Your task to perform on an android device: open app "HBO Max: Stream TV & Movies" (install if not already installed) Image 0: 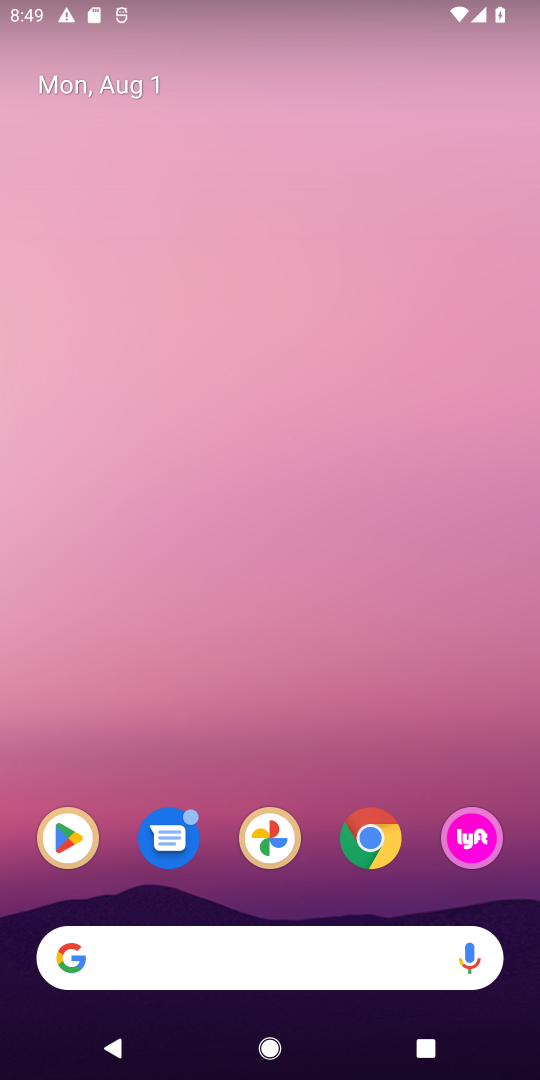
Step 0: drag from (364, 952) to (292, 219)
Your task to perform on an android device: open app "HBO Max: Stream TV & Movies" (install if not already installed) Image 1: 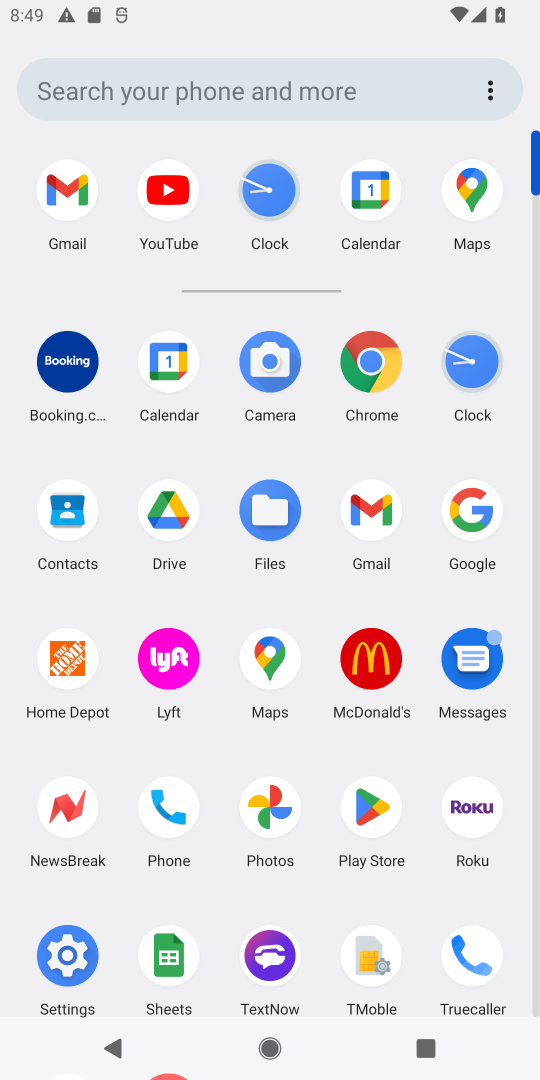
Step 1: click (362, 807)
Your task to perform on an android device: open app "HBO Max: Stream TV & Movies" (install if not already installed) Image 2: 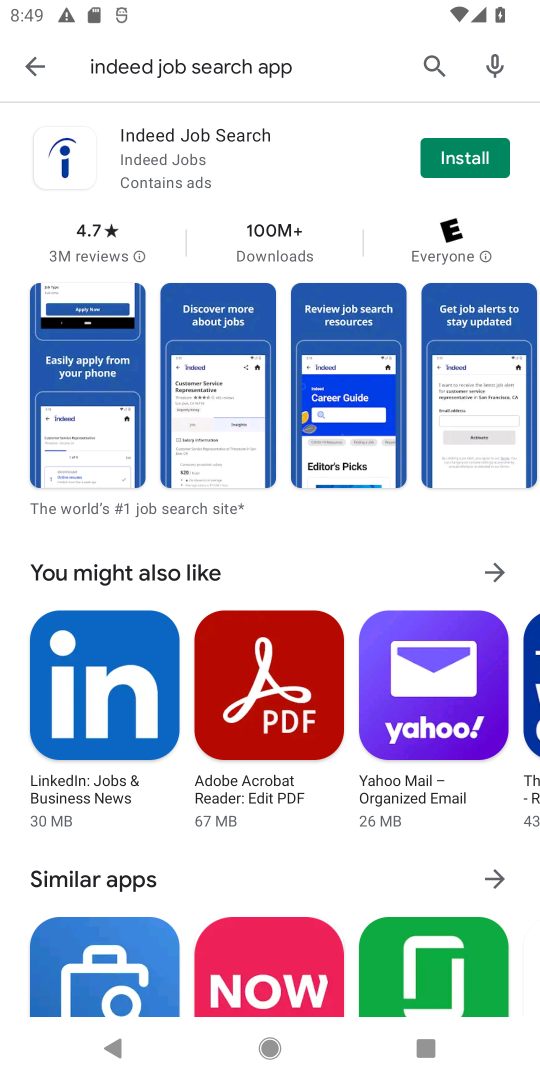
Step 2: click (434, 52)
Your task to perform on an android device: open app "HBO Max: Stream TV & Movies" (install if not already installed) Image 3: 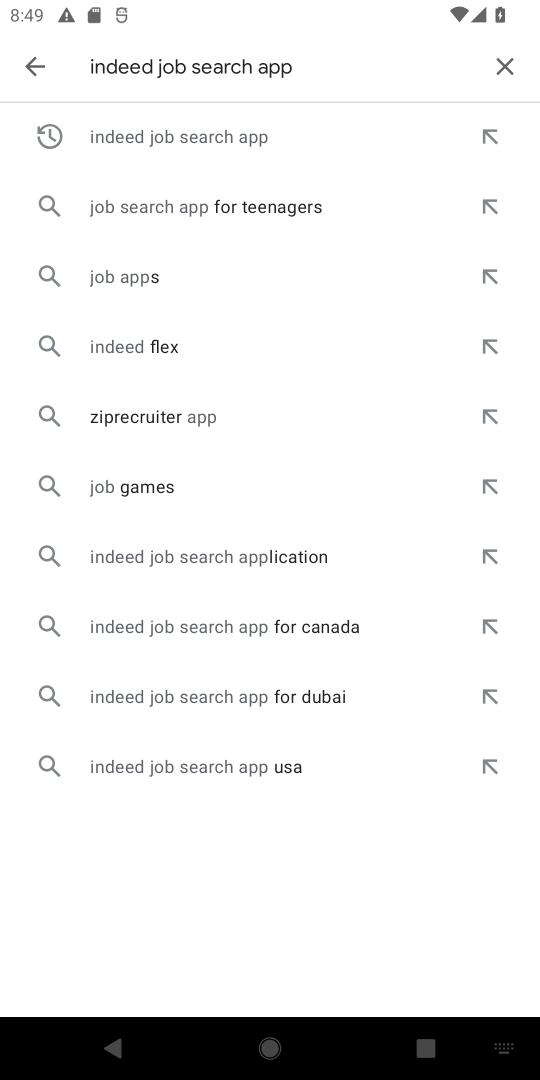
Step 3: click (508, 66)
Your task to perform on an android device: open app "HBO Max: Stream TV & Movies" (install if not already installed) Image 4: 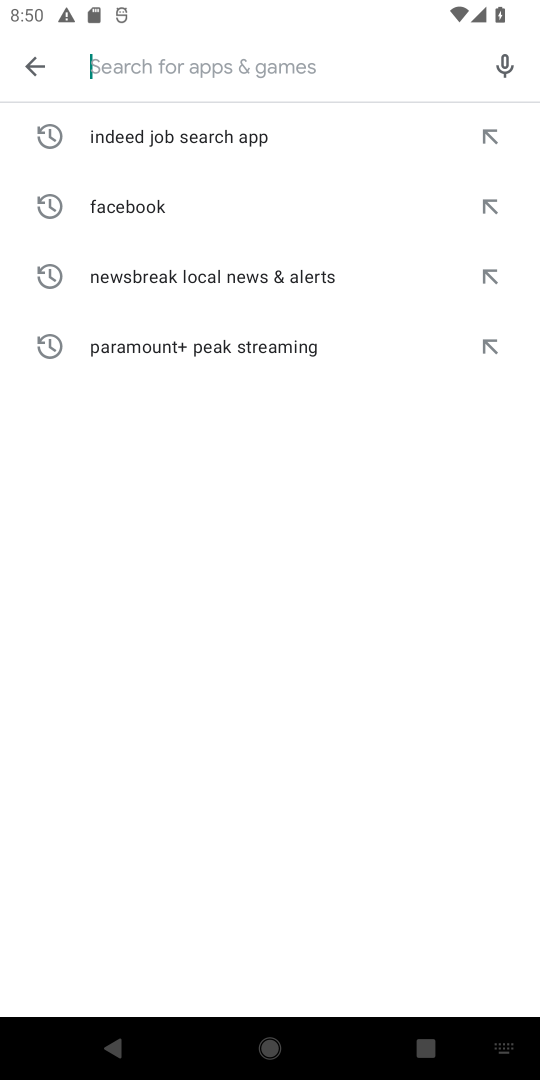
Step 4: type "hbo max: stream tv & movies"
Your task to perform on an android device: open app "HBO Max: Stream TV & Movies" (install if not already installed) Image 5: 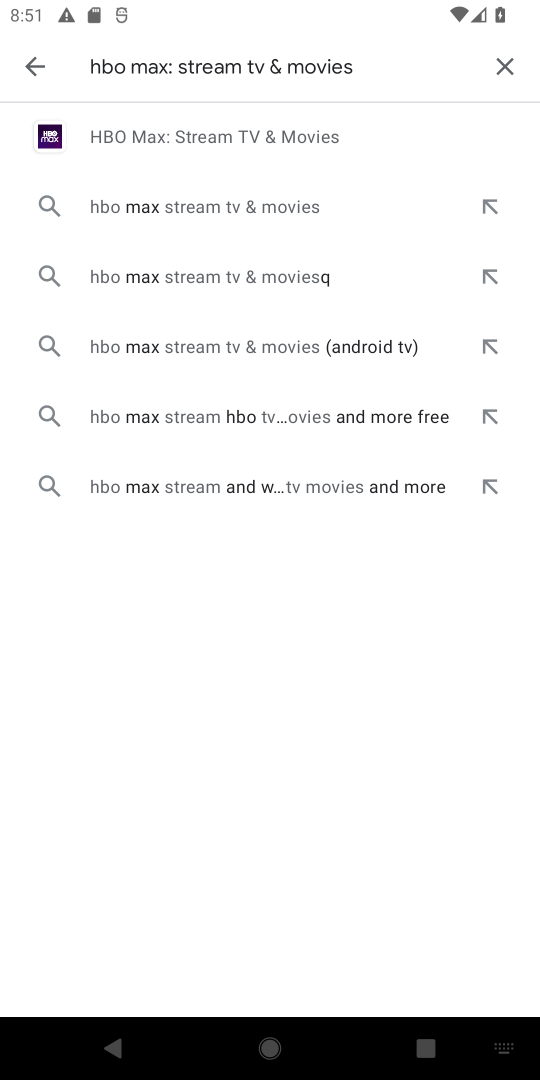
Step 5: click (290, 150)
Your task to perform on an android device: open app "HBO Max: Stream TV & Movies" (install if not already installed) Image 6: 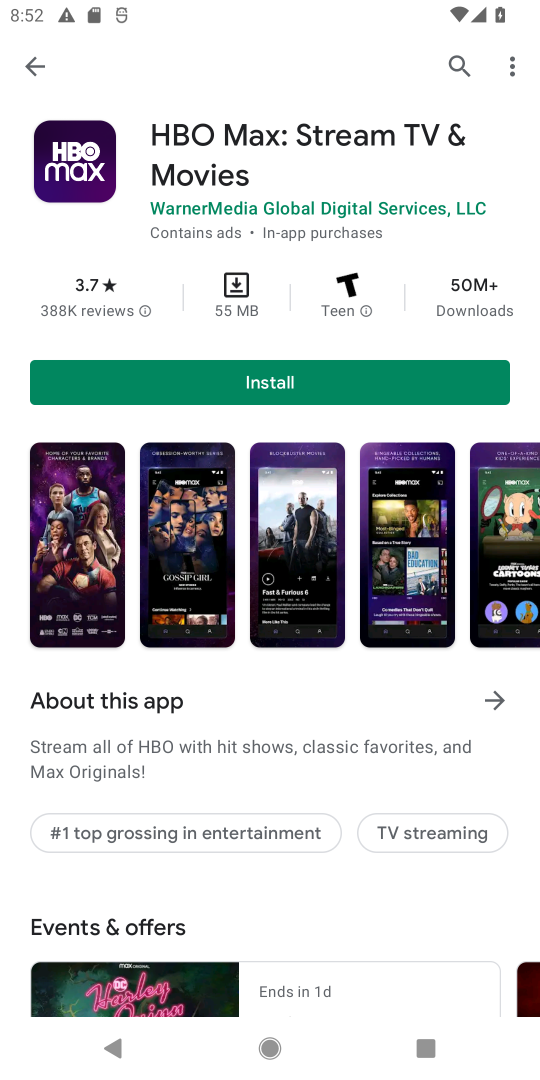
Step 6: click (347, 373)
Your task to perform on an android device: open app "HBO Max: Stream TV & Movies" (install if not already installed) Image 7: 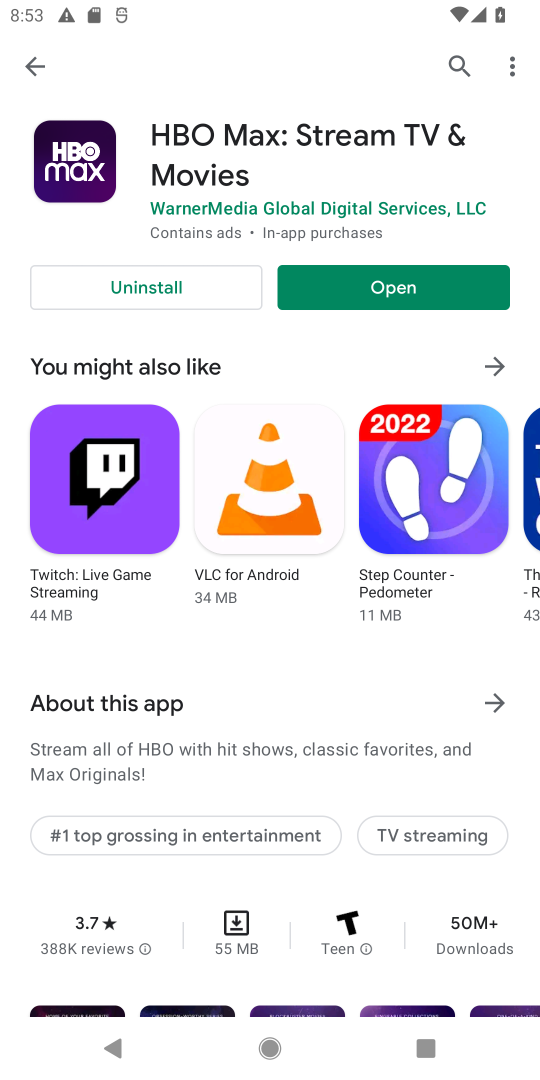
Step 7: click (404, 283)
Your task to perform on an android device: open app "HBO Max: Stream TV & Movies" (install if not already installed) Image 8: 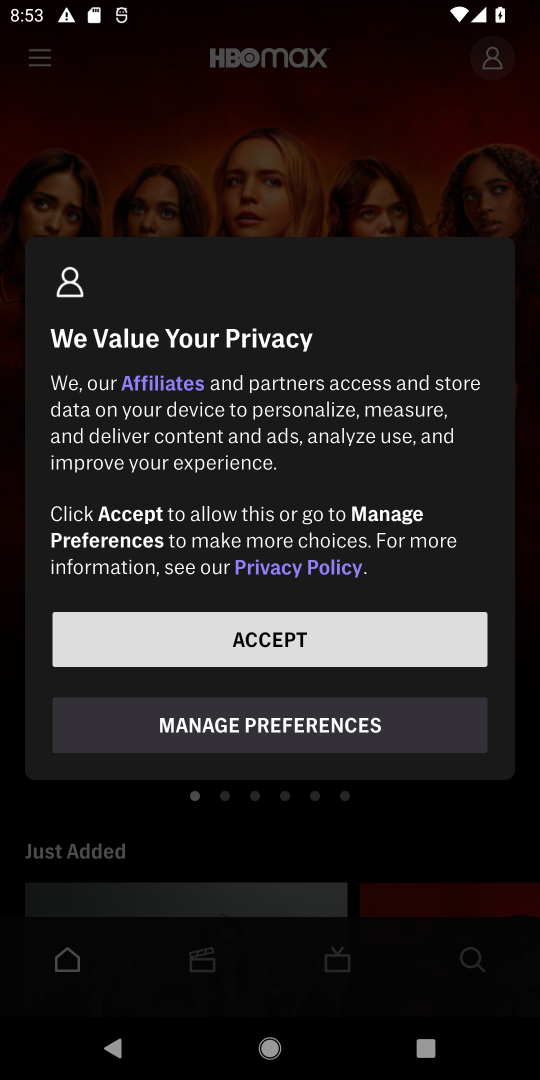
Step 8: task complete